Your task to perform on an android device: Open calendar and show me the third week of next month Image 0: 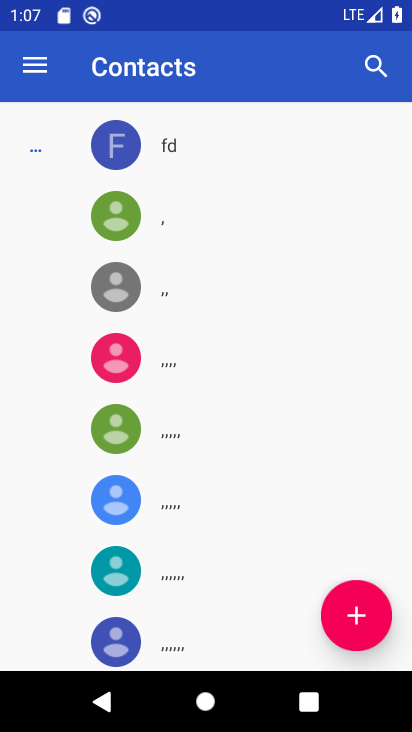
Step 0: press home button
Your task to perform on an android device: Open calendar and show me the third week of next month Image 1: 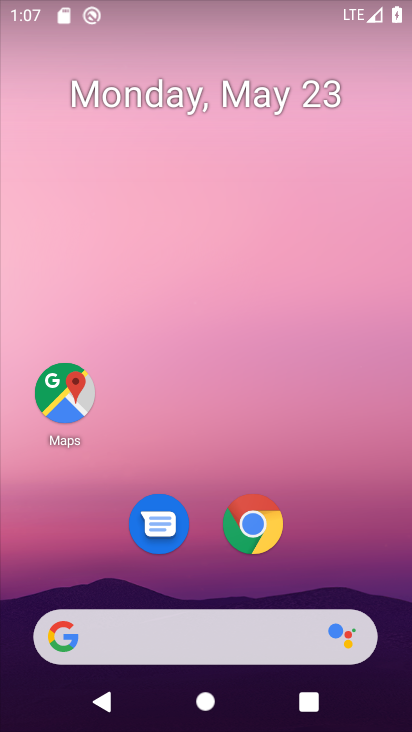
Step 1: drag from (220, 451) to (241, 25)
Your task to perform on an android device: Open calendar and show me the third week of next month Image 2: 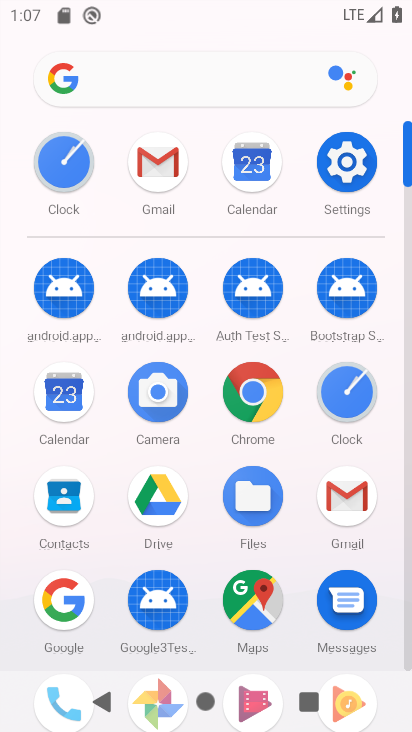
Step 2: click (75, 398)
Your task to perform on an android device: Open calendar and show me the third week of next month Image 3: 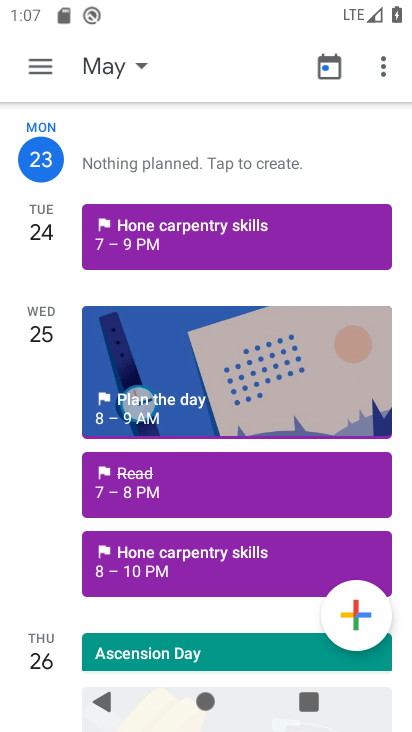
Step 3: click (46, 63)
Your task to perform on an android device: Open calendar and show me the third week of next month Image 4: 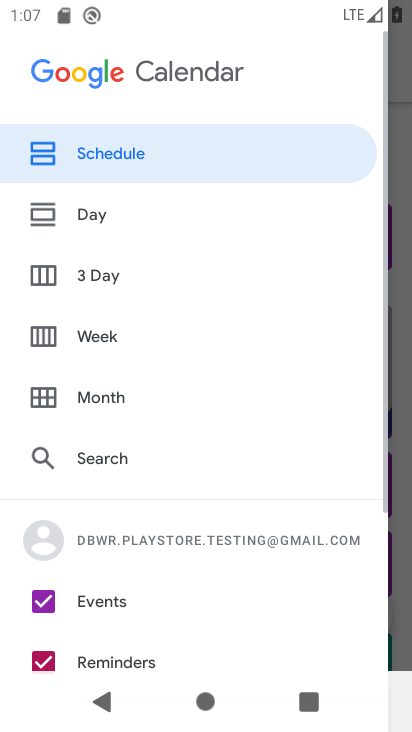
Step 4: click (66, 329)
Your task to perform on an android device: Open calendar and show me the third week of next month Image 5: 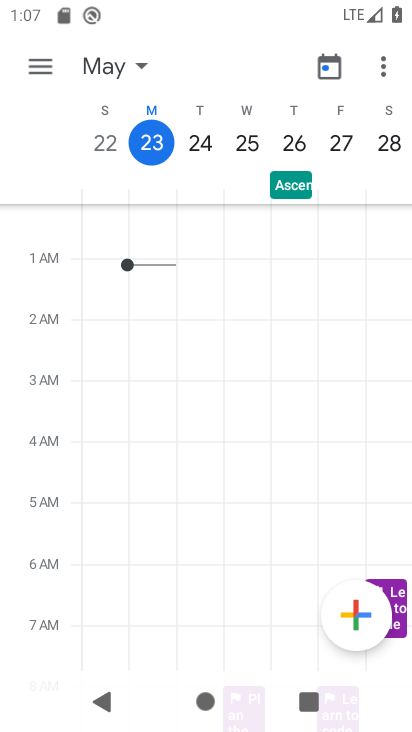
Step 5: task complete